Your task to perform on an android device: Clear the shopping cart on amazon. Add "macbook air" to the cart on amazon Image 0: 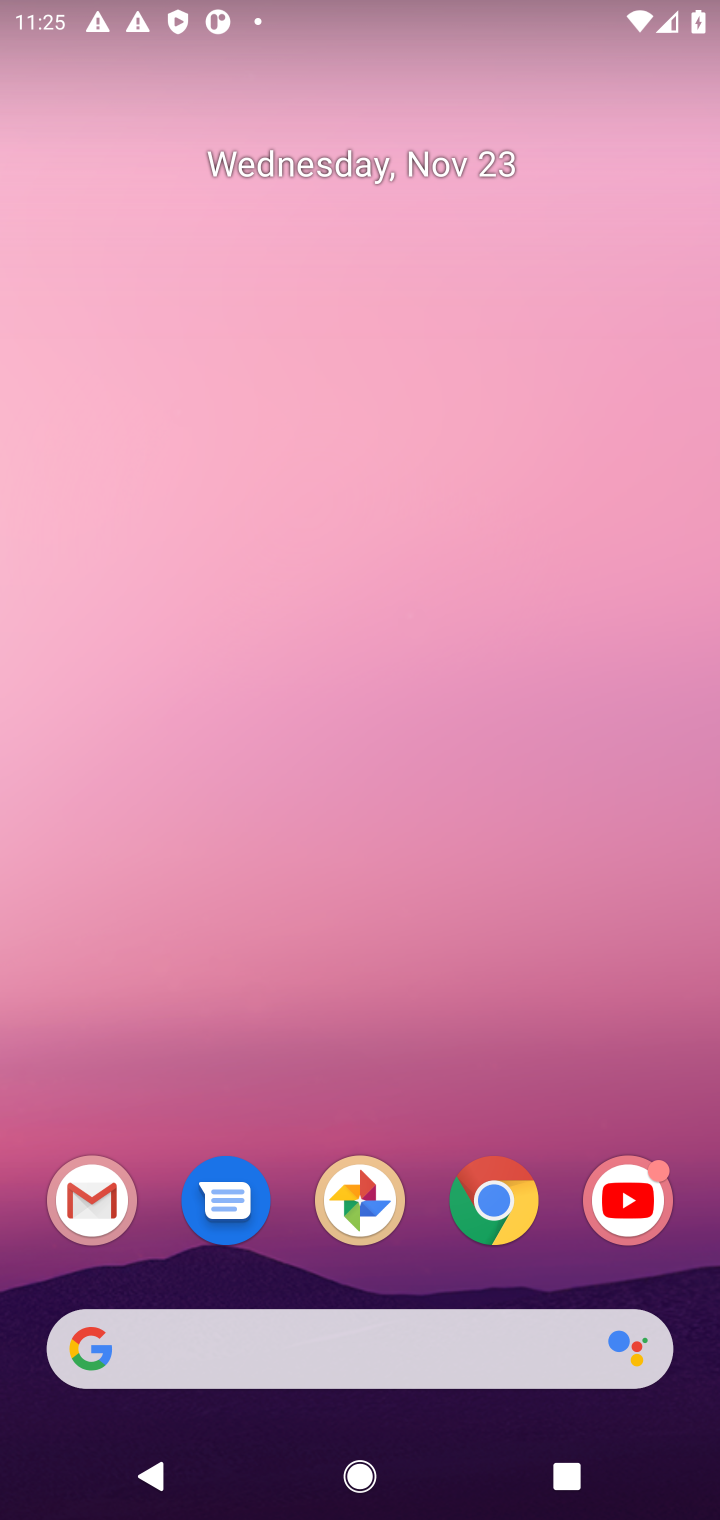
Step 0: click (308, 1347)
Your task to perform on an android device: Clear the shopping cart on amazon. Add "macbook air" to the cart on amazon Image 1: 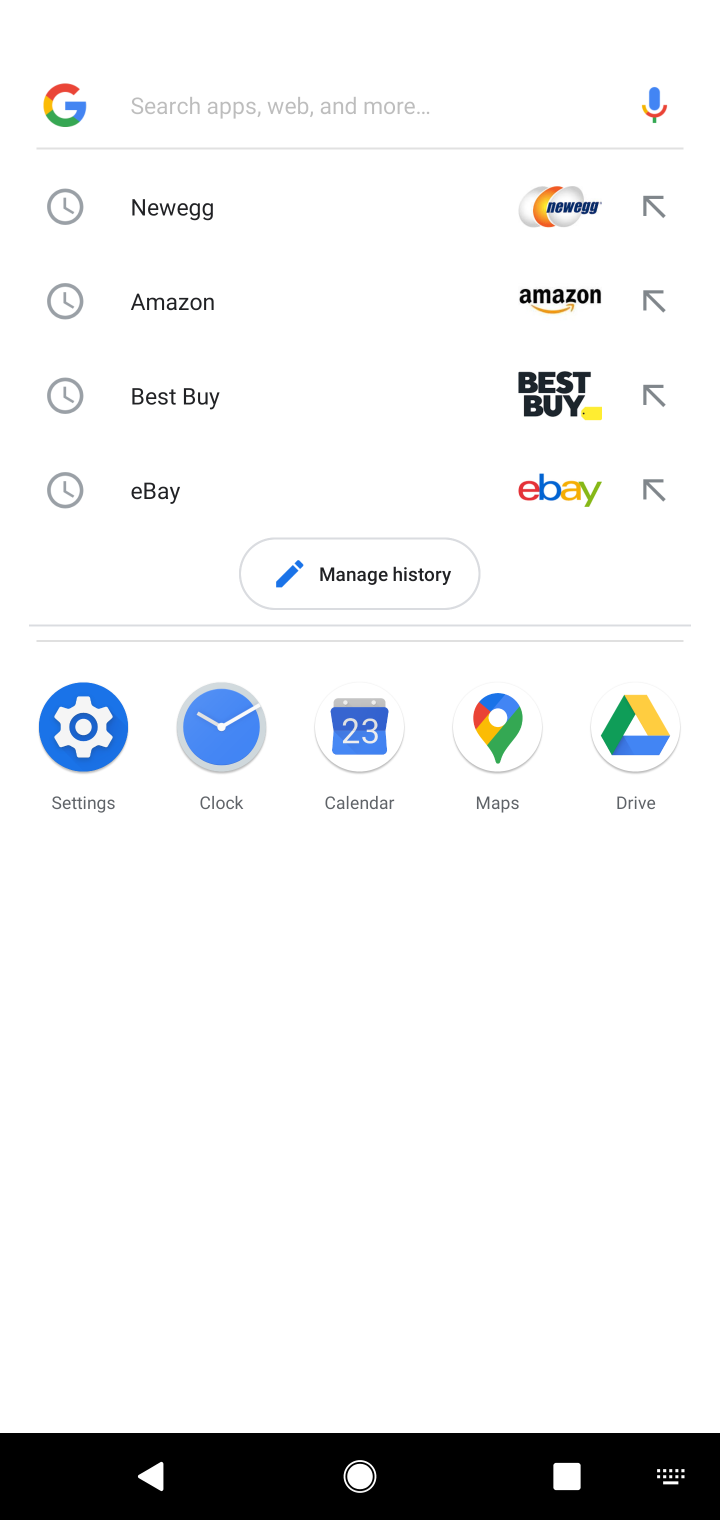
Step 1: click (399, 295)
Your task to perform on an android device: Clear the shopping cart on amazon. Add "macbook air" to the cart on amazon Image 2: 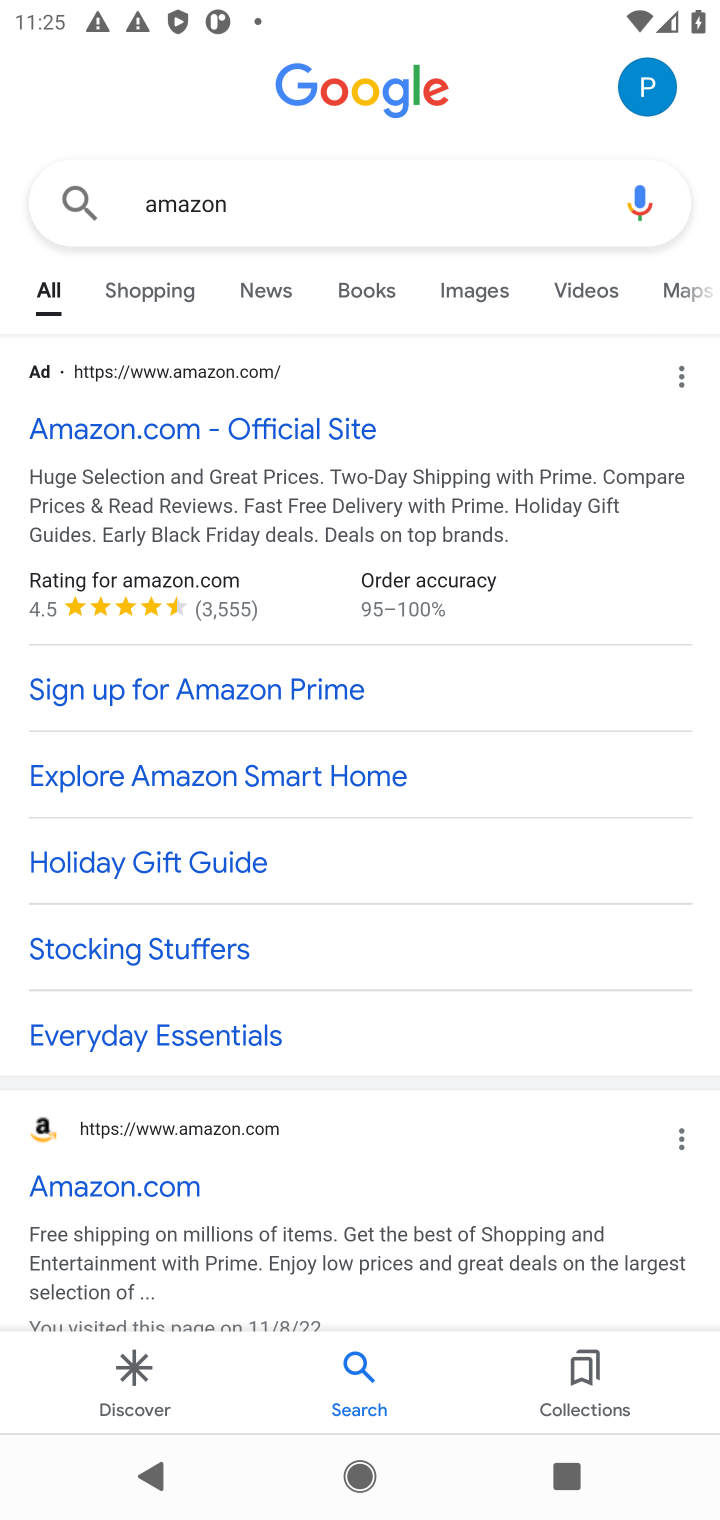
Step 2: click (234, 415)
Your task to perform on an android device: Clear the shopping cart on amazon. Add "macbook air" to the cart on amazon Image 3: 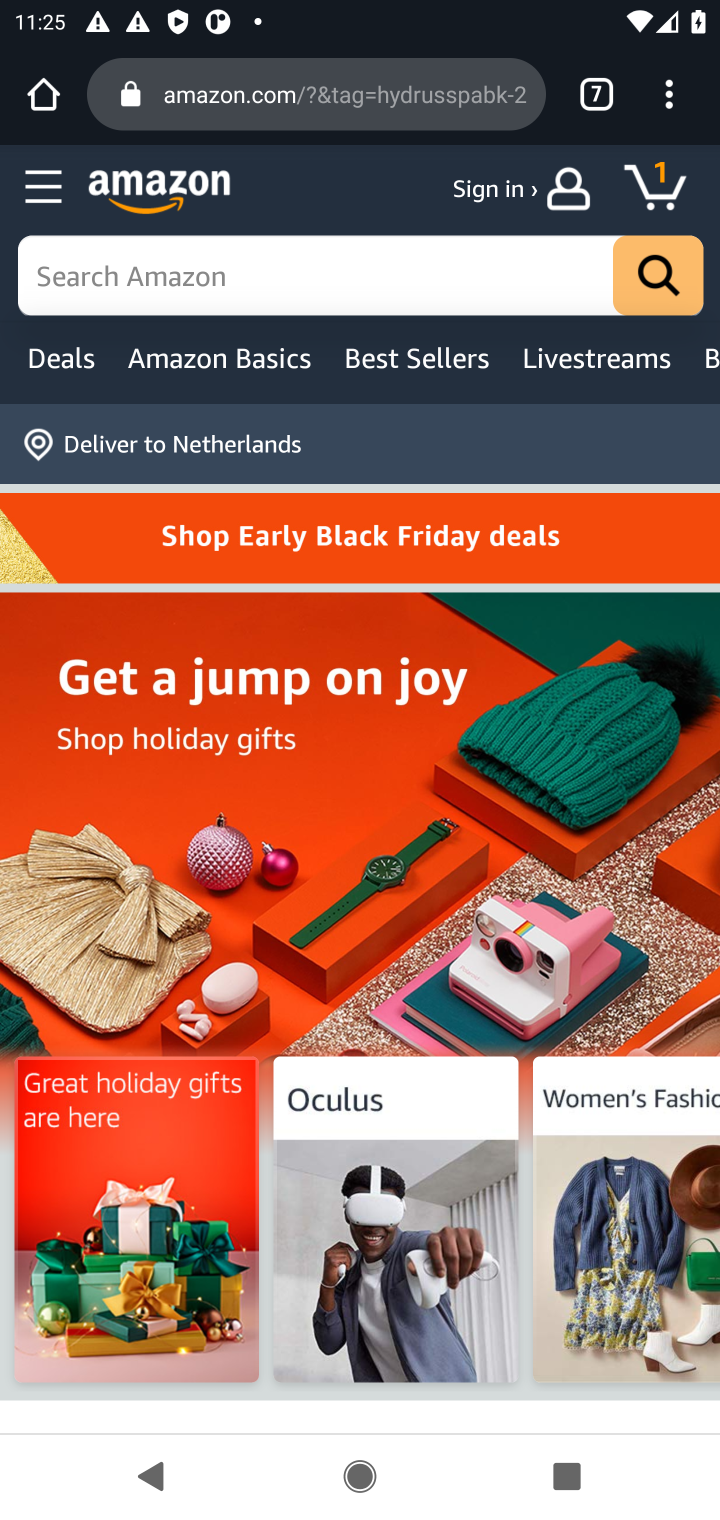
Step 3: click (335, 287)
Your task to perform on an android device: Clear the shopping cart on amazon. Add "macbook air" to the cart on amazon Image 4: 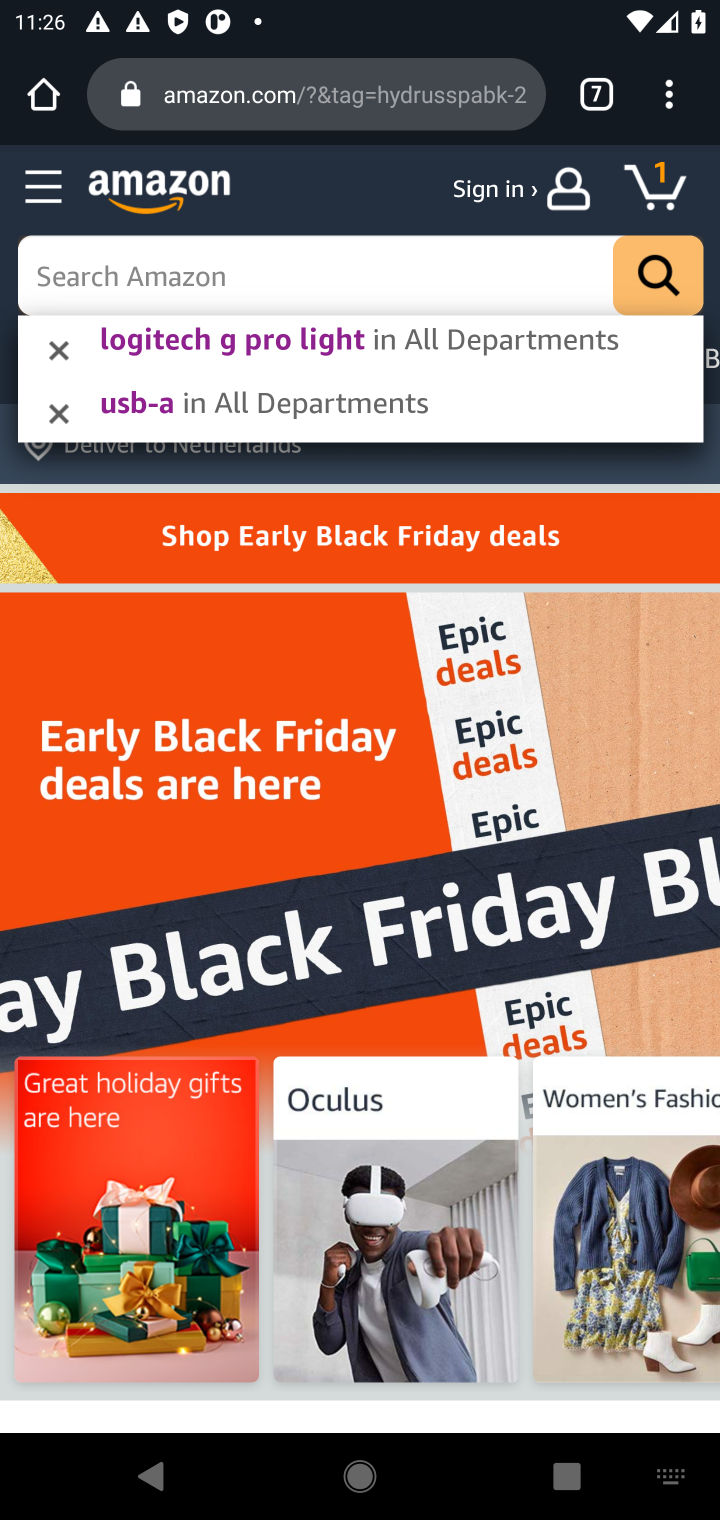
Step 4: type "macbook air"
Your task to perform on an android device: Clear the shopping cart on amazon. Add "macbook air" to the cart on amazon Image 5: 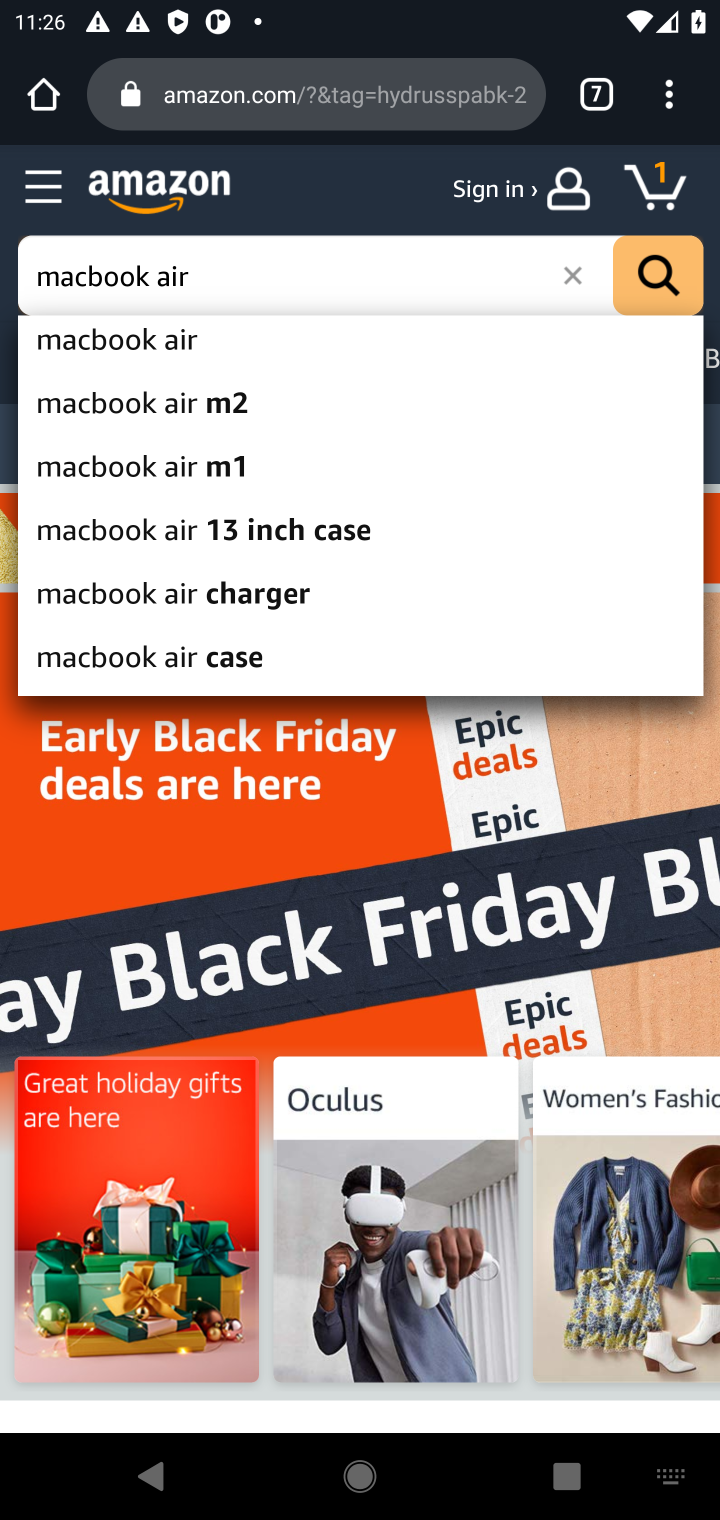
Step 5: click (157, 327)
Your task to perform on an android device: Clear the shopping cart on amazon. Add "macbook air" to the cart on amazon Image 6: 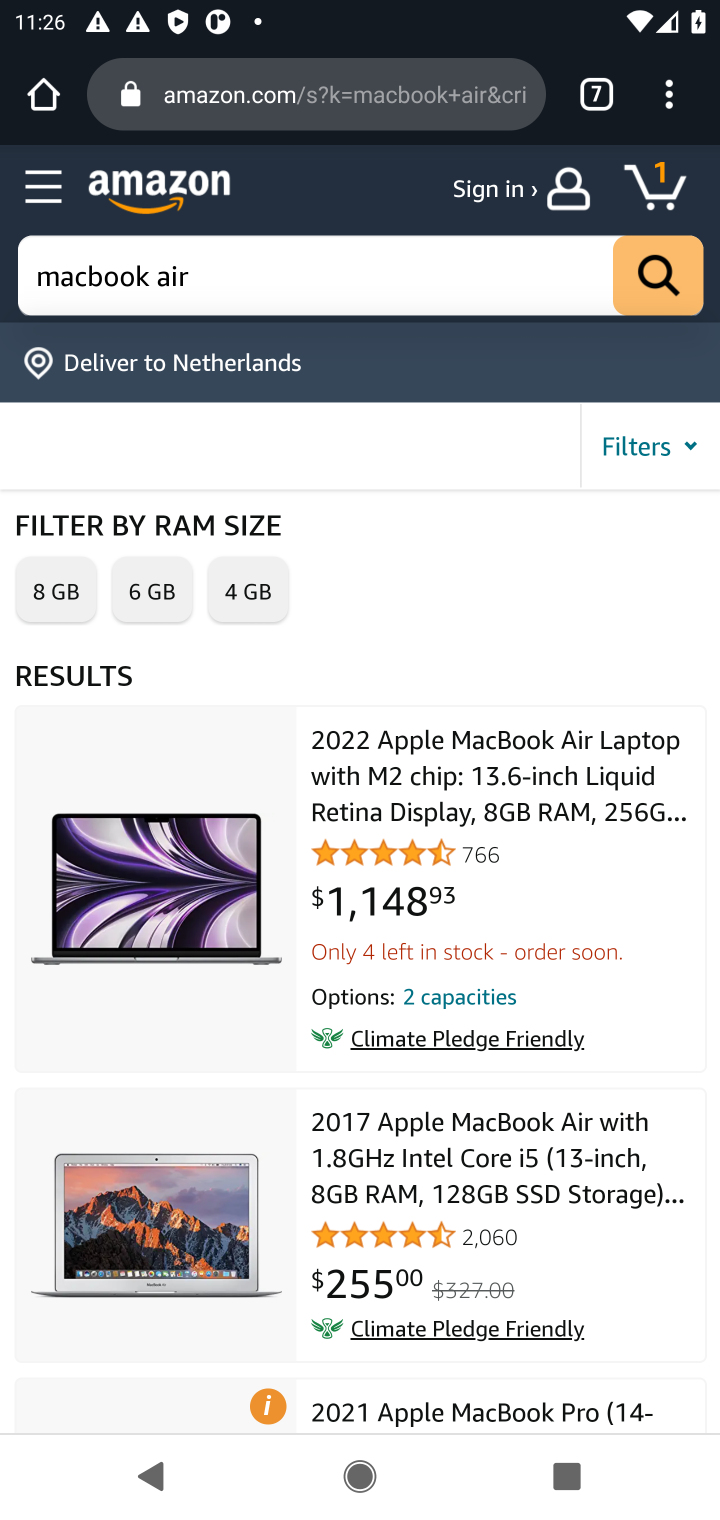
Step 6: click (380, 859)
Your task to perform on an android device: Clear the shopping cart on amazon. Add "macbook air" to the cart on amazon Image 7: 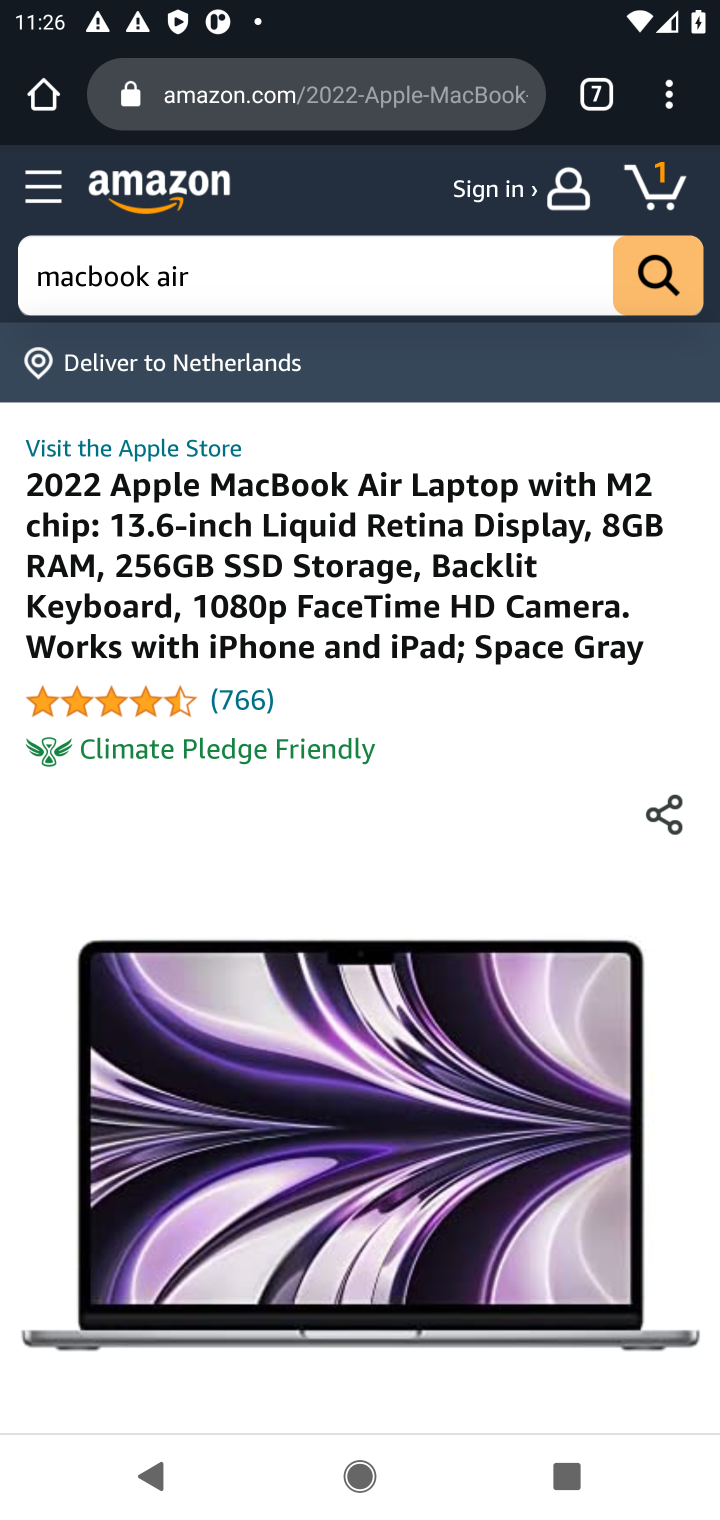
Step 7: task complete